Your task to perform on an android device: change timer sound Image 0: 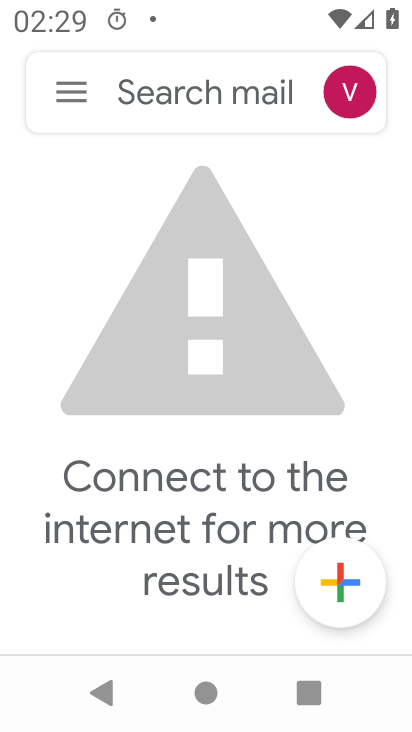
Step 0: press home button
Your task to perform on an android device: change timer sound Image 1: 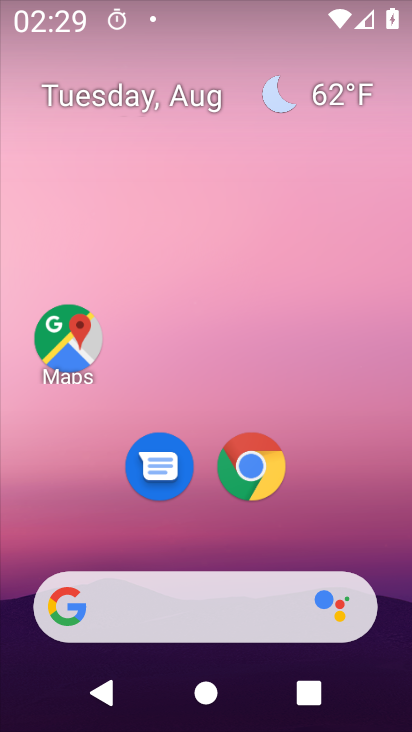
Step 1: drag from (384, 565) to (399, 126)
Your task to perform on an android device: change timer sound Image 2: 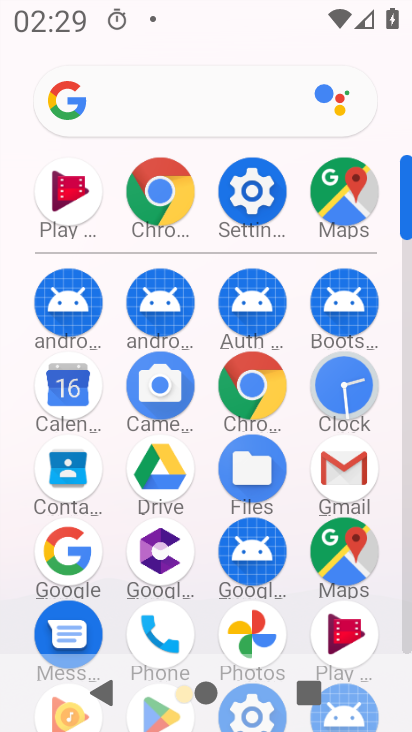
Step 2: click (351, 394)
Your task to perform on an android device: change timer sound Image 3: 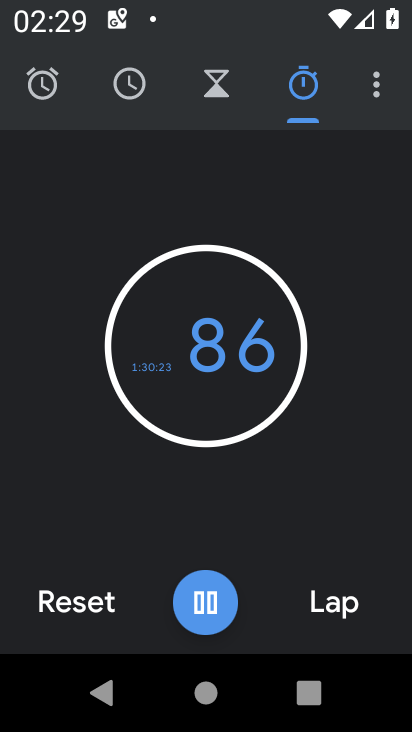
Step 3: click (374, 93)
Your task to perform on an android device: change timer sound Image 4: 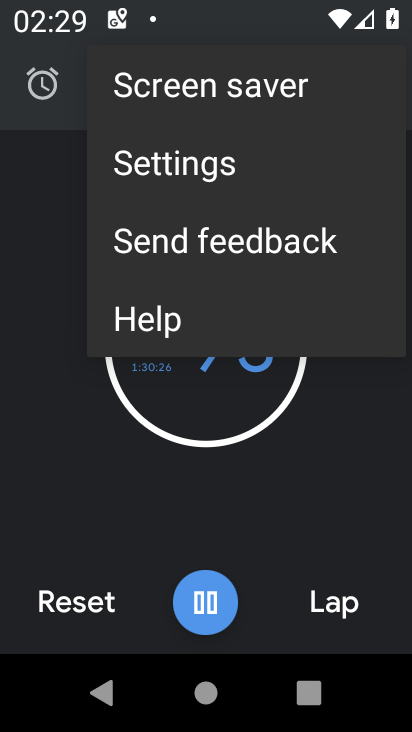
Step 4: click (248, 166)
Your task to perform on an android device: change timer sound Image 5: 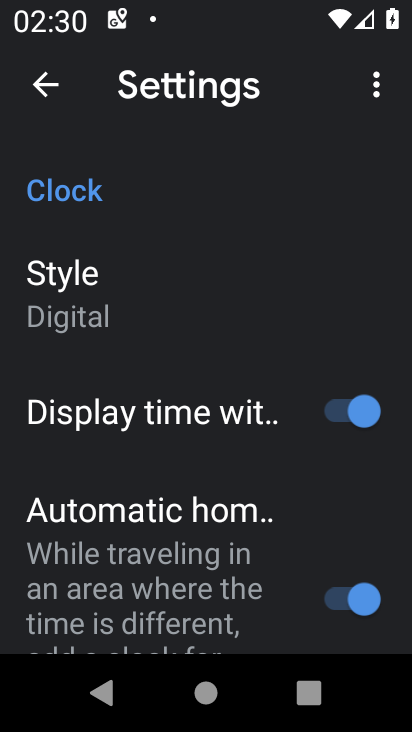
Step 5: drag from (287, 557) to (312, 398)
Your task to perform on an android device: change timer sound Image 6: 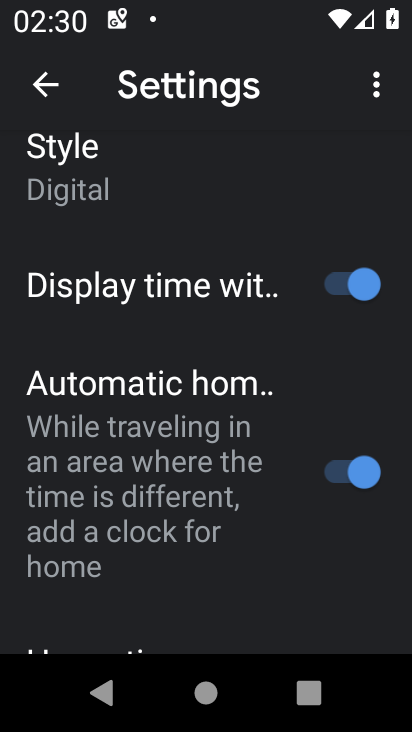
Step 6: drag from (262, 565) to (286, 404)
Your task to perform on an android device: change timer sound Image 7: 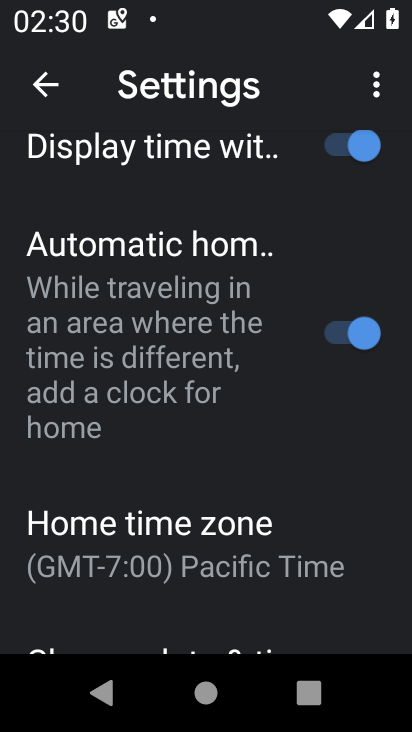
Step 7: drag from (270, 583) to (281, 421)
Your task to perform on an android device: change timer sound Image 8: 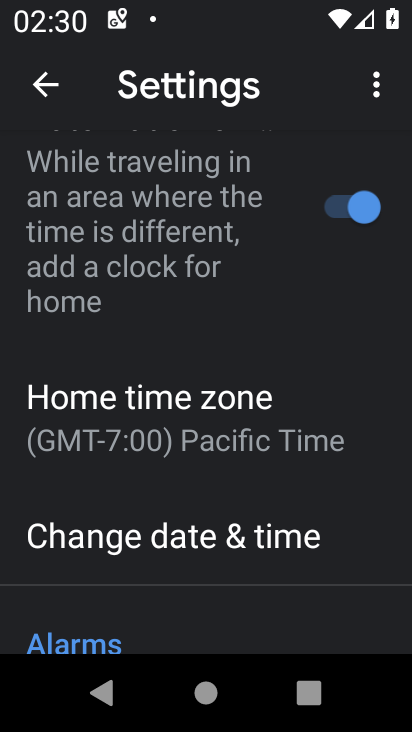
Step 8: drag from (237, 601) to (274, 425)
Your task to perform on an android device: change timer sound Image 9: 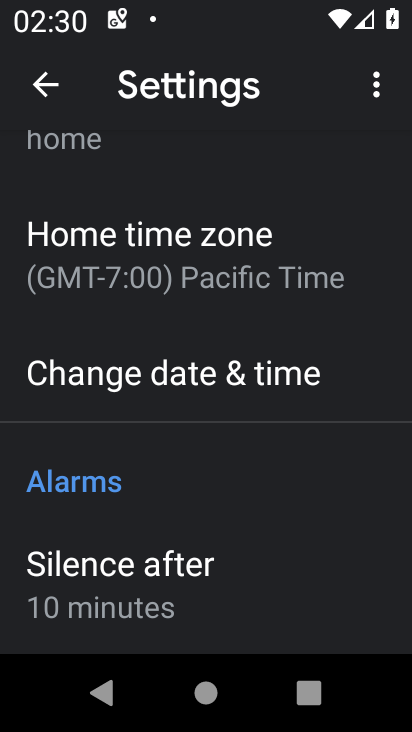
Step 9: drag from (288, 591) to (301, 474)
Your task to perform on an android device: change timer sound Image 10: 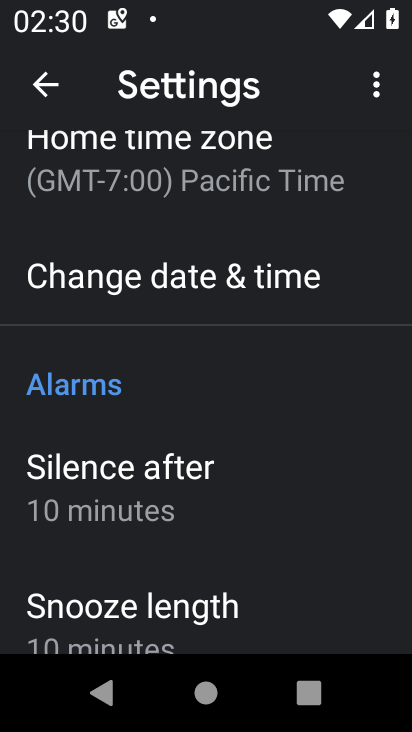
Step 10: drag from (356, 573) to (368, 442)
Your task to perform on an android device: change timer sound Image 11: 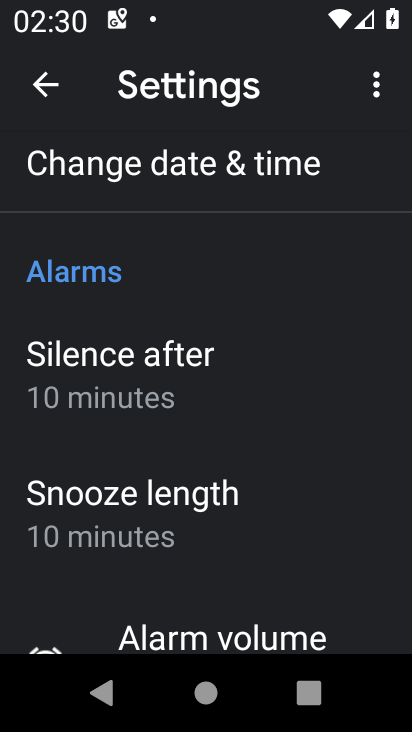
Step 11: drag from (353, 586) to (338, 395)
Your task to perform on an android device: change timer sound Image 12: 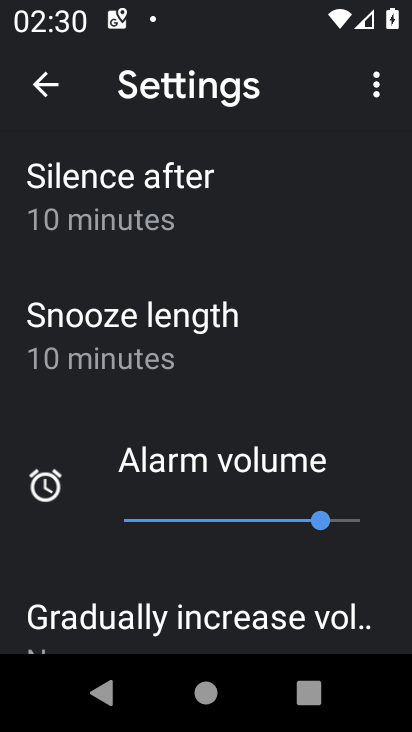
Step 12: drag from (308, 605) to (307, 349)
Your task to perform on an android device: change timer sound Image 13: 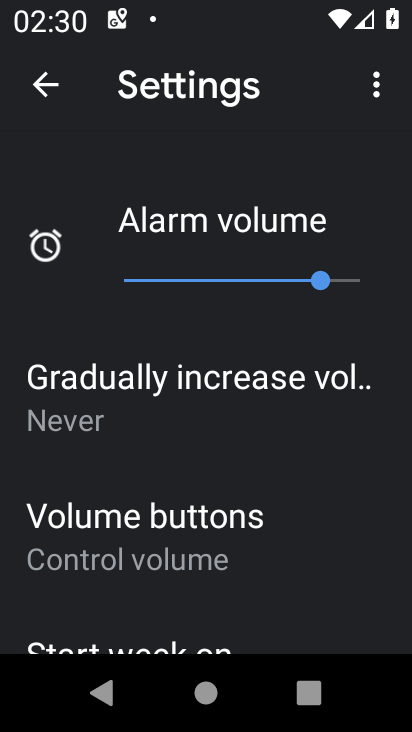
Step 13: drag from (287, 574) to (287, 334)
Your task to perform on an android device: change timer sound Image 14: 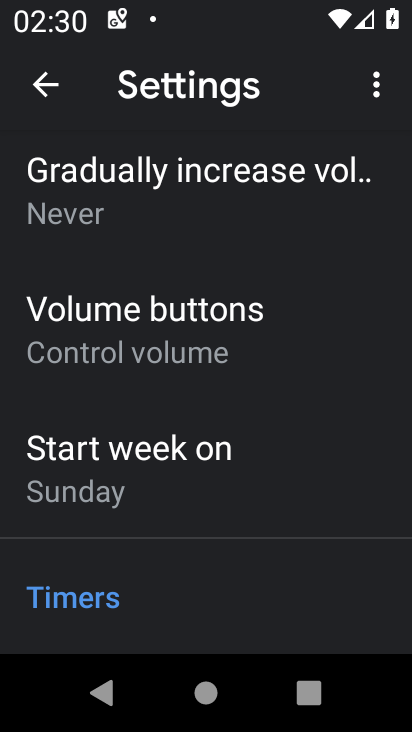
Step 14: drag from (273, 606) to (273, 365)
Your task to perform on an android device: change timer sound Image 15: 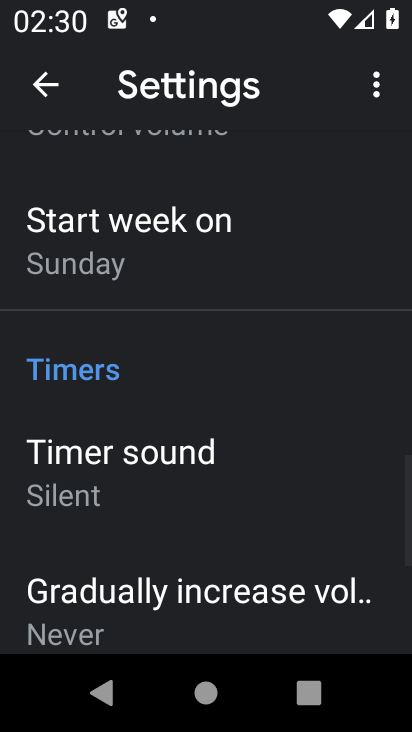
Step 15: click (192, 497)
Your task to perform on an android device: change timer sound Image 16: 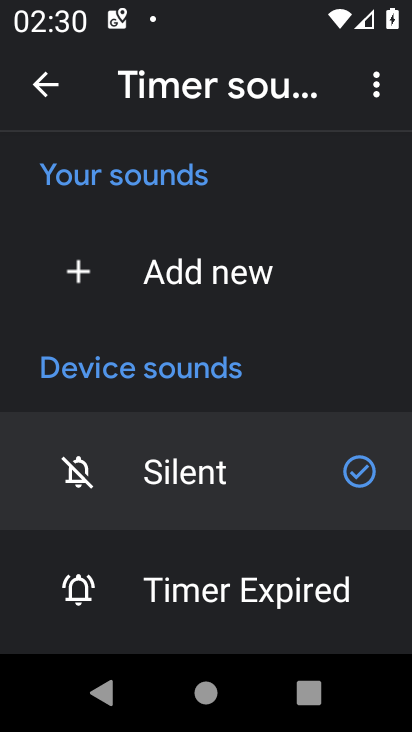
Step 16: click (182, 588)
Your task to perform on an android device: change timer sound Image 17: 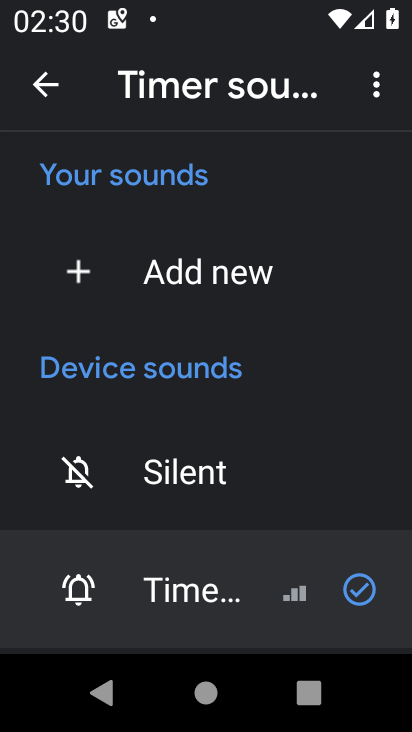
Step 17: task complete